Your task to perform on an android device: Open Android settings Image 0: 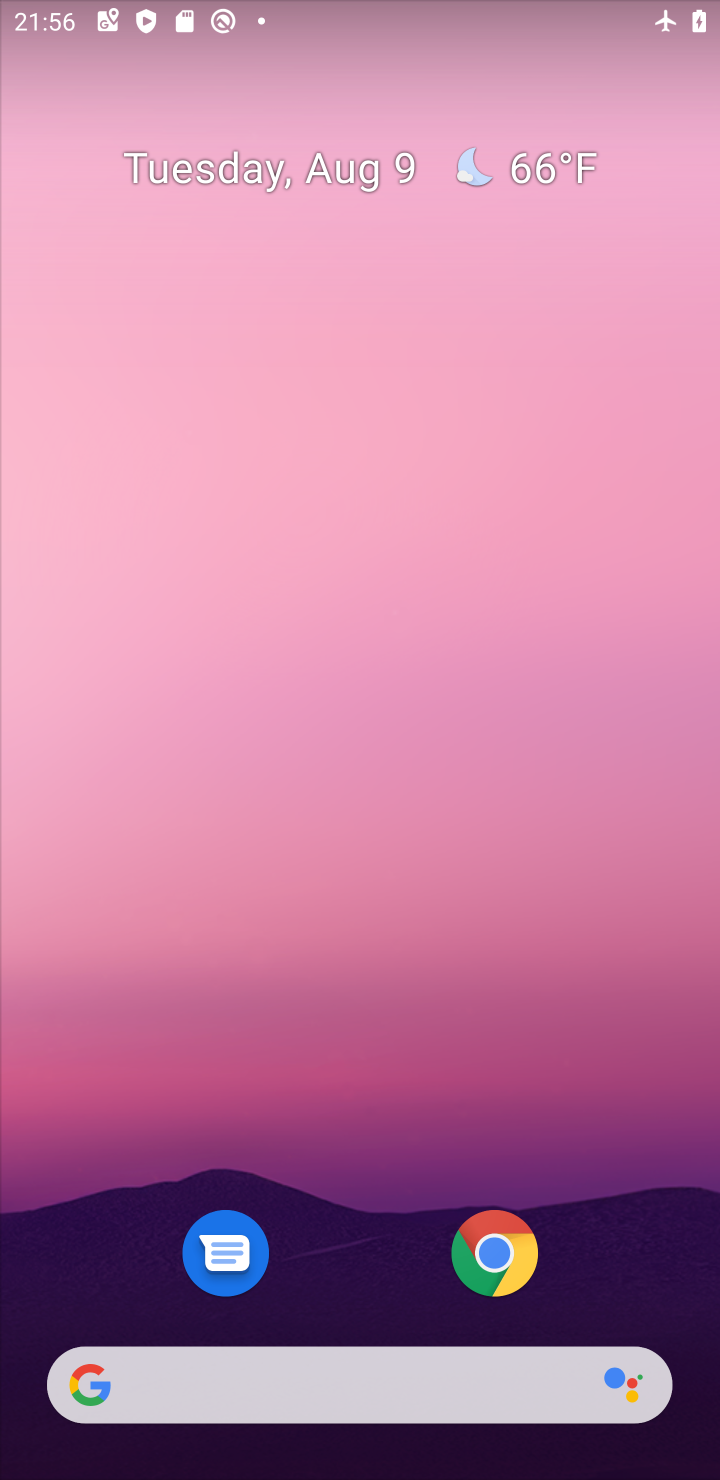
Step 0: drag from (330, 1127) to (431, 183)
Your task to perform on an android device: Open Android settings Image 1: 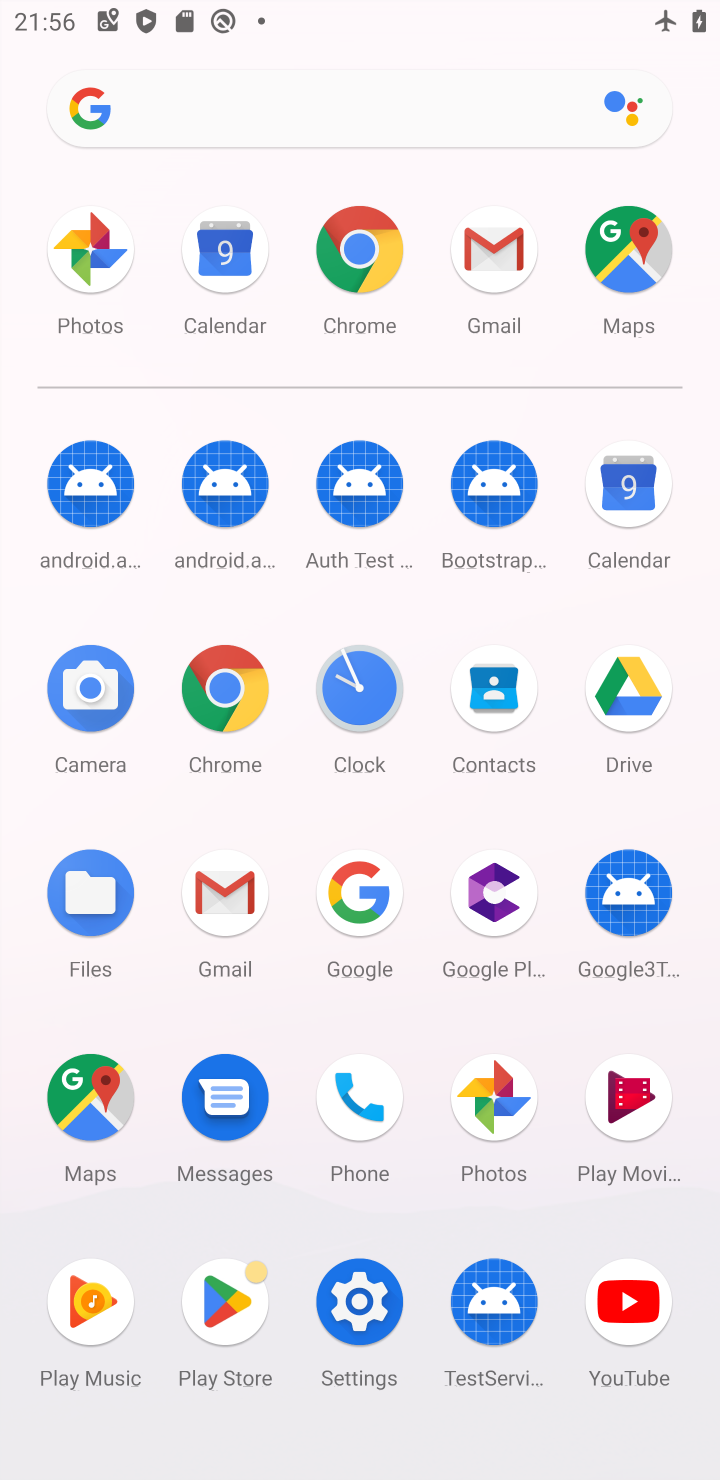
Step 1: click (365, 1289)
Your task to perform on an android device: Open Android settings Image 2: 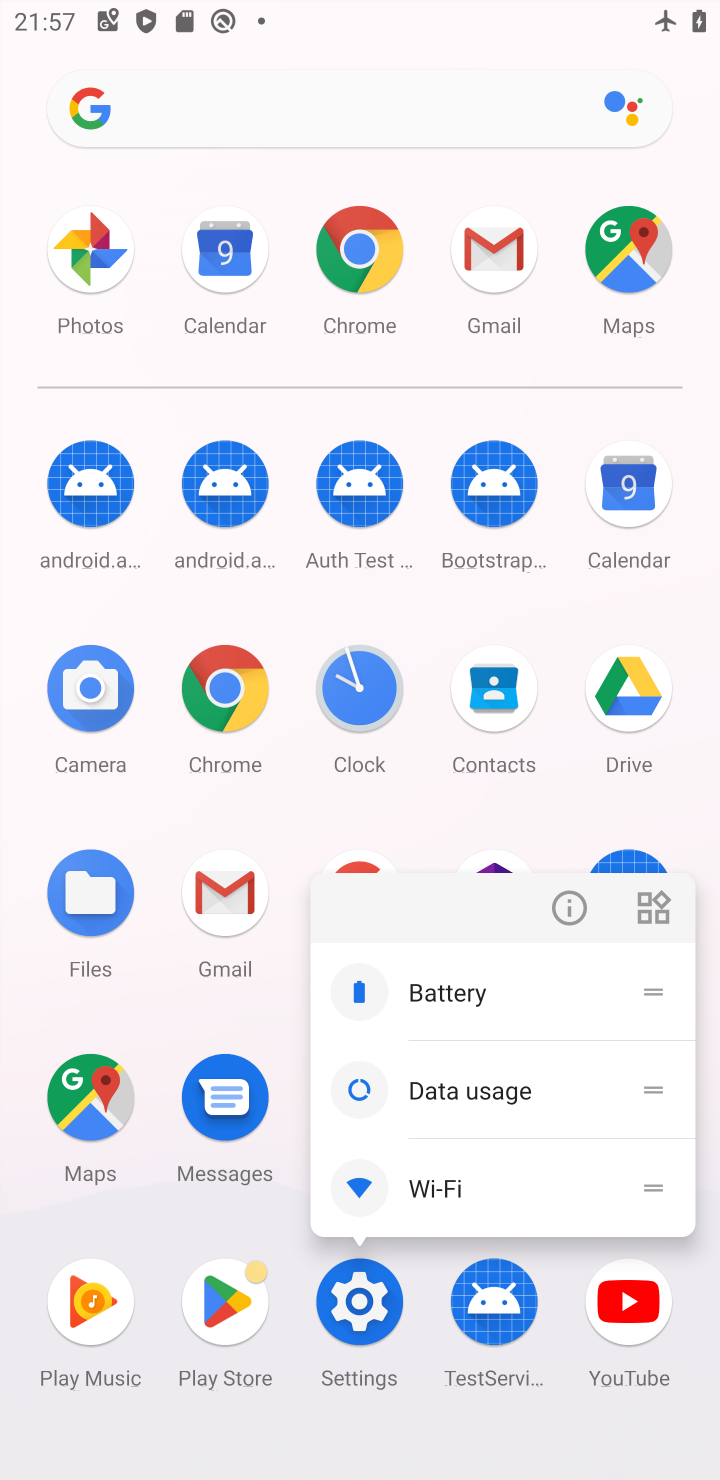
Step 2: click (340, 1301)
Your task to perform on an android device: Open Android settings Image 3: 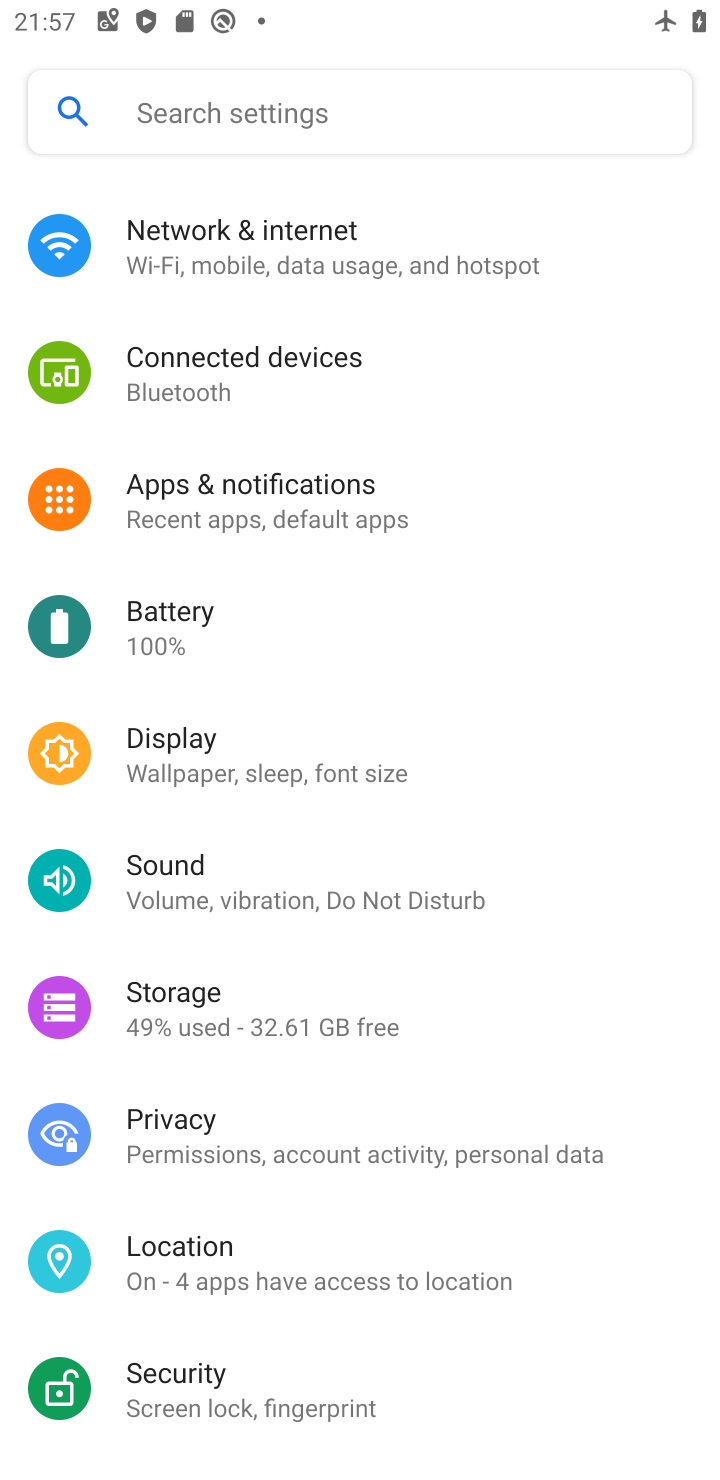
Step 3: task complete